Your task to perform on an android device: Open Google Chrome and open the bookmarks view Image 0: 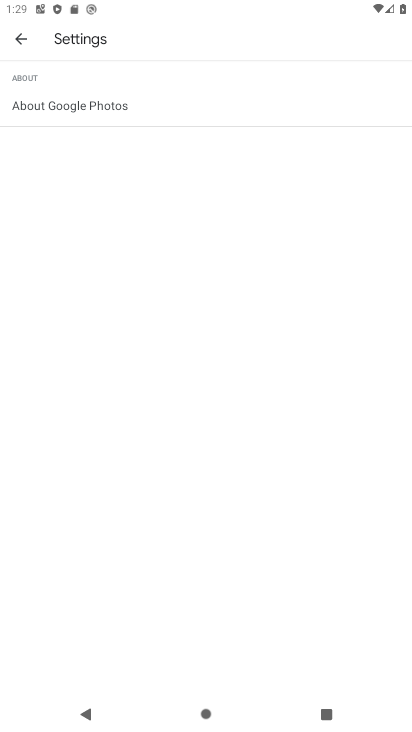
Step 0: press home button
Your task to perform on an android device: Open Google Chrome and open the bookmarks view Image 1: 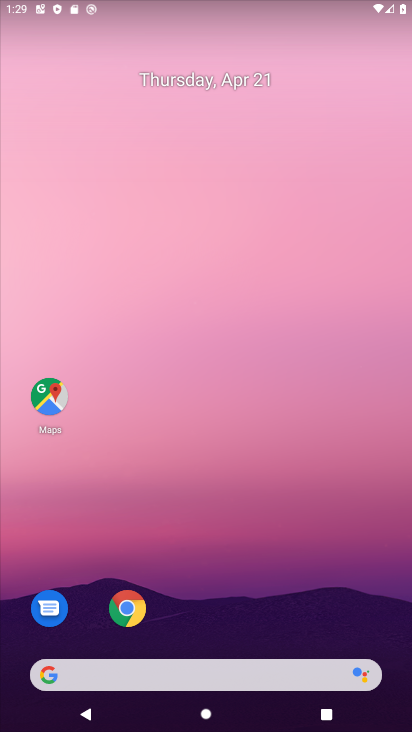
Step 1: drag from (280, 571) to (326, 88)
Your task to perform on an android device: Open Google Chrome and open the bookmarks view Image 2: 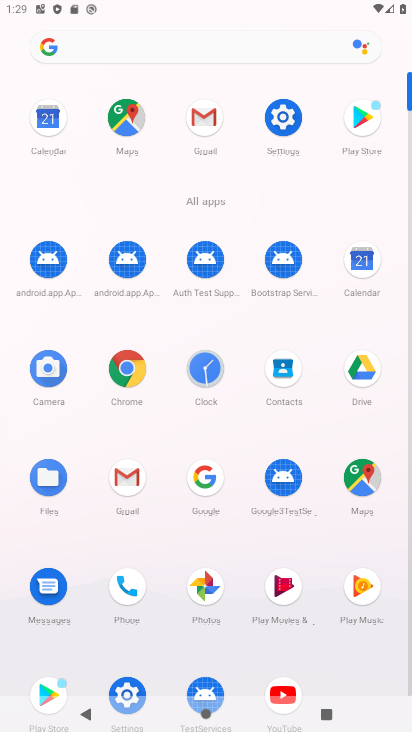
Step 2: click (114, 366)
Your task to perform on an android device: Open Google Chrome and open the bookmarks view Image 3: 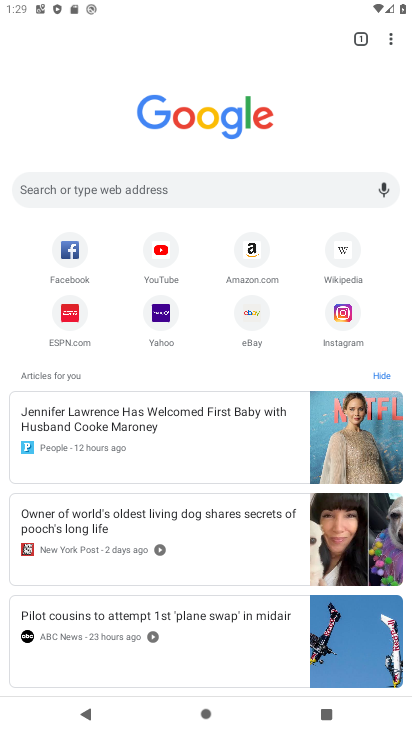
Step 3: drag from (398, 34) to (276, 150)
Your task to perform on an android device: Open Google Chrome and open the bookmarks view Image 4: 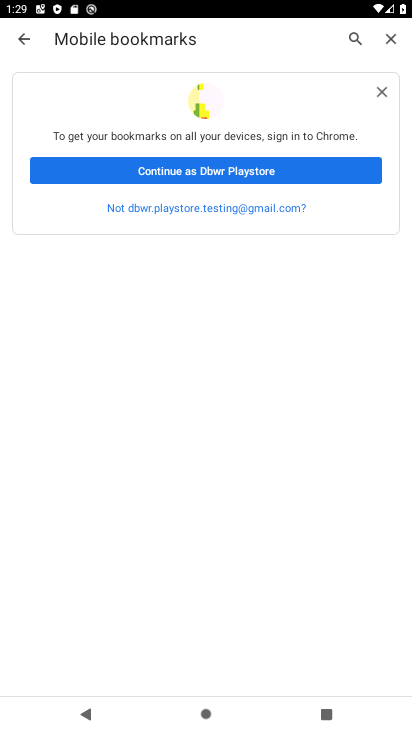
Step 4: click (276, 150)
Your task to perform on an android device: Open Google Chrome and open the bookmarks view Image 5: 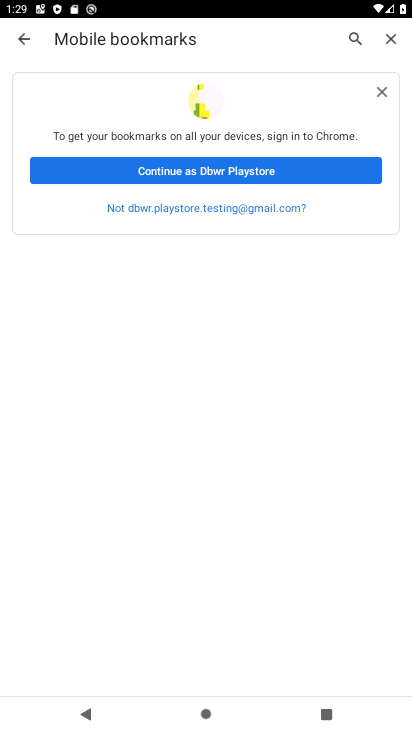
Step 5: click (261, 172)
Your task to perform on an android device: Open Google Chrome and open the bookmarks view Image 6: 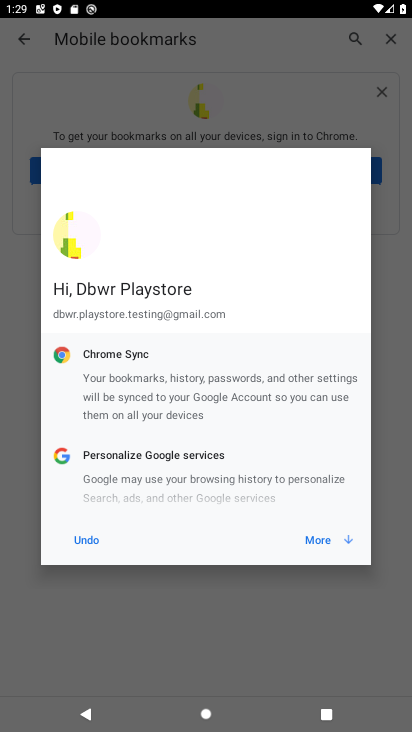
Step 6: click (306, 547)
Your task to perform on an android device: Open Google Chrome and open the bookmarks view Image 7: 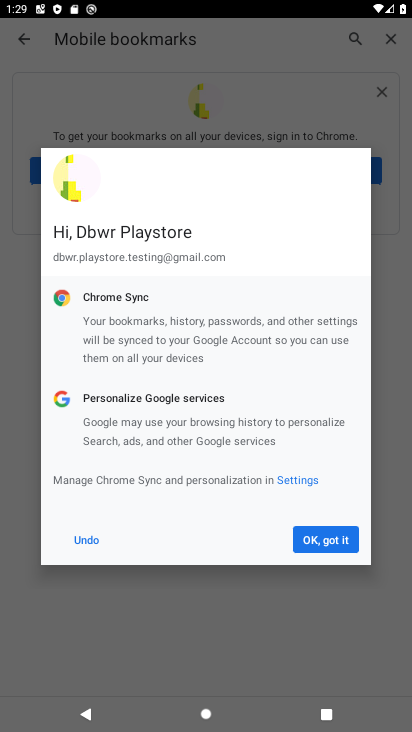
Step 7: click (307, 545)
Your task to perform on an android device: Open Google Chrome and open the bookmarks view Image 8: 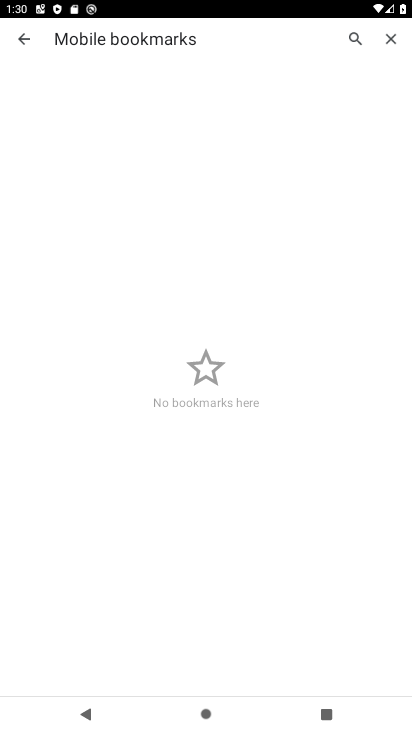
Step 8: task complete